Your task to perform on an android device: open app "DuckDuckGo Privacy Browser" (install if not already installed) Image 0: 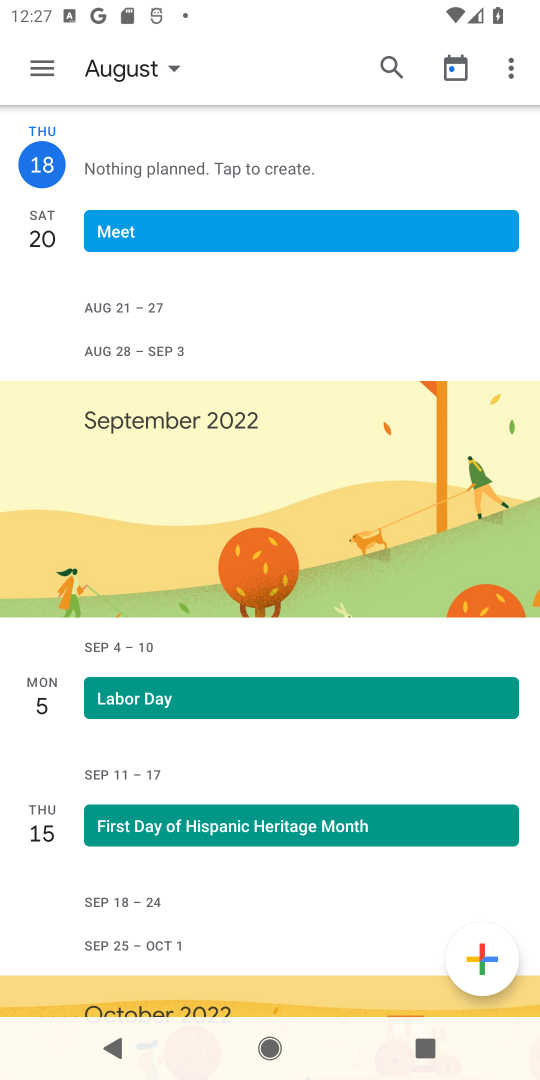
Step 0: press home button
Your task to perform on an android device: open app "DuckDuckGo Privacy Browser" (install if not already installed) Image 1: 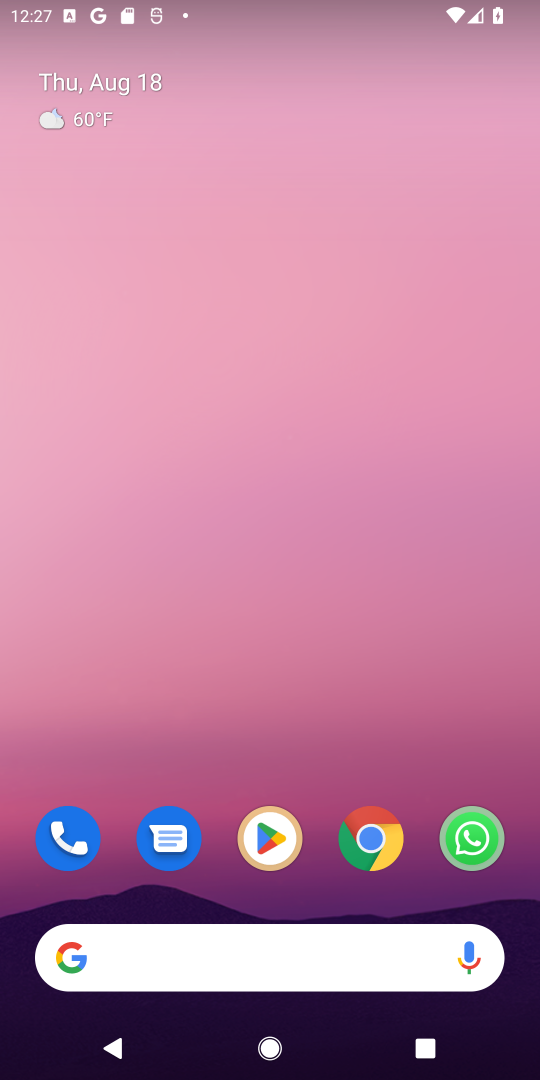
Step 1: click (278, 816)
Your task to perform on an android device: open app "DuckDuckGo Privacy Browser" (install if not already installed) Image 2: 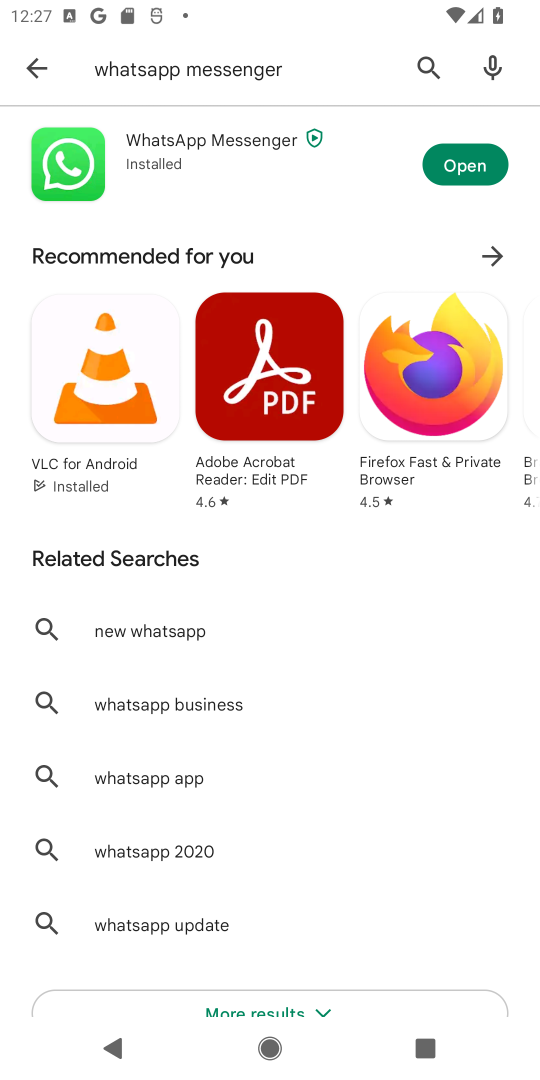
Step 2: click (422, 72)
Your task to perform on an android device: open app "DuckDuckGo Privacy Browser" (install if not already installed) Image 3: 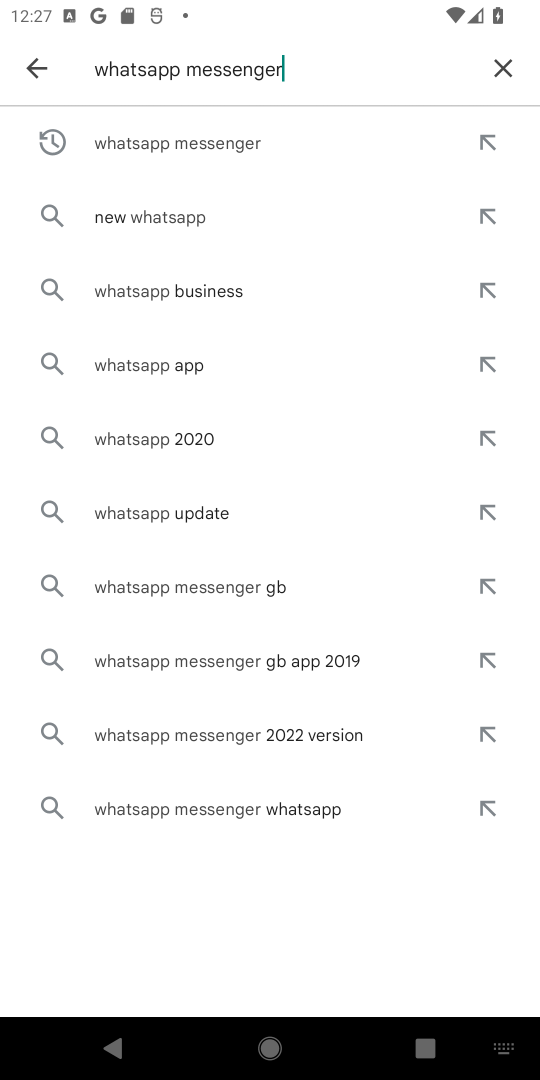
Step 3: click (496, 64)
Your task to perform on an android device: open app "DuckDuckGo Privacy Browser" (install if not already installed) Image 4: 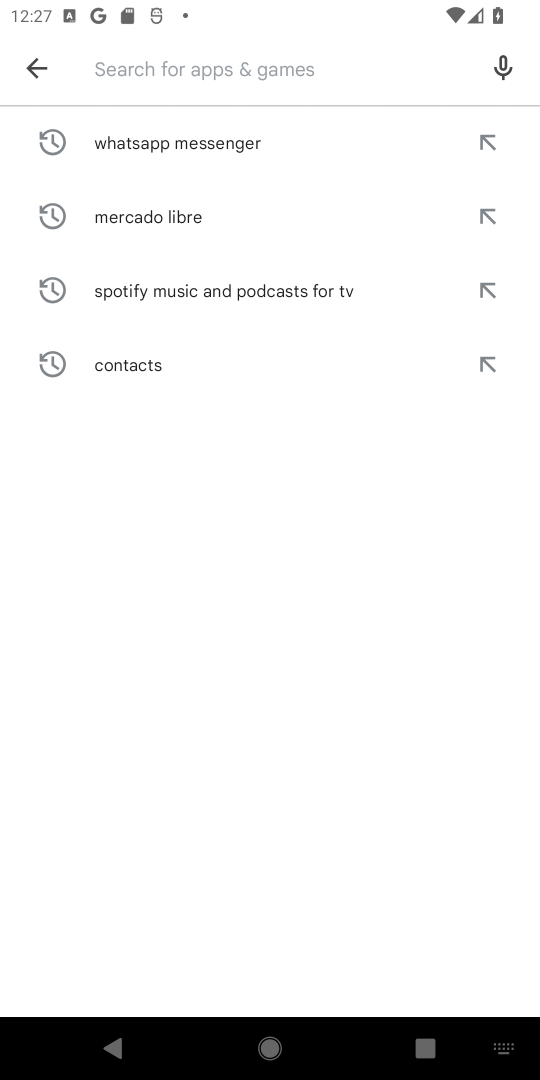
Step 4: type "DuckDuckGo Privacy Browser"
Your task to perform on an android device: open app "DuckDuckGo Privacy Browser" (install if not already installed) Image 5: 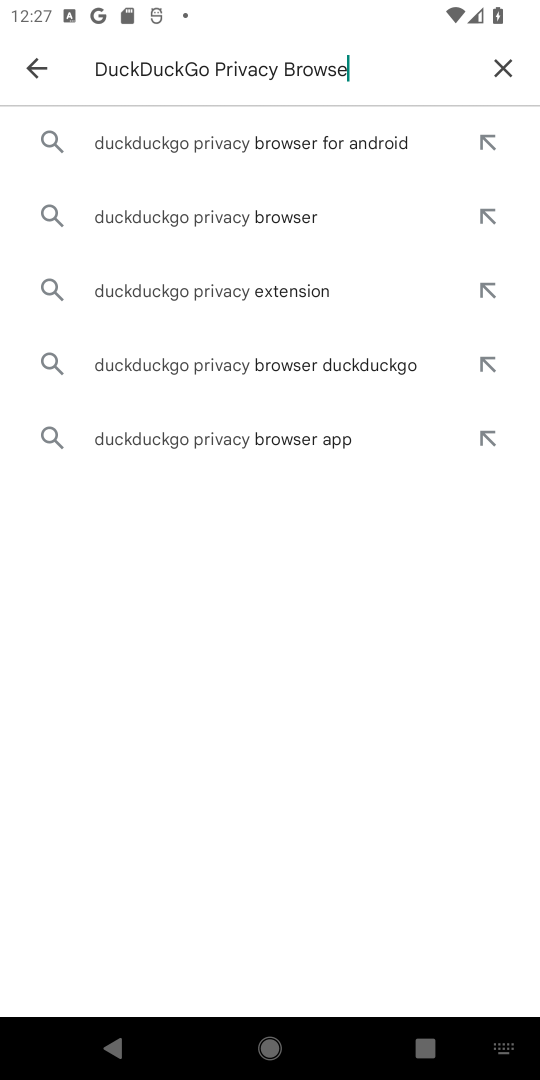
Step 5: type ""
Your task to perform on an android device: open app "DuckDuckGo Privacy Browser" (install if not already installed) Image 6: 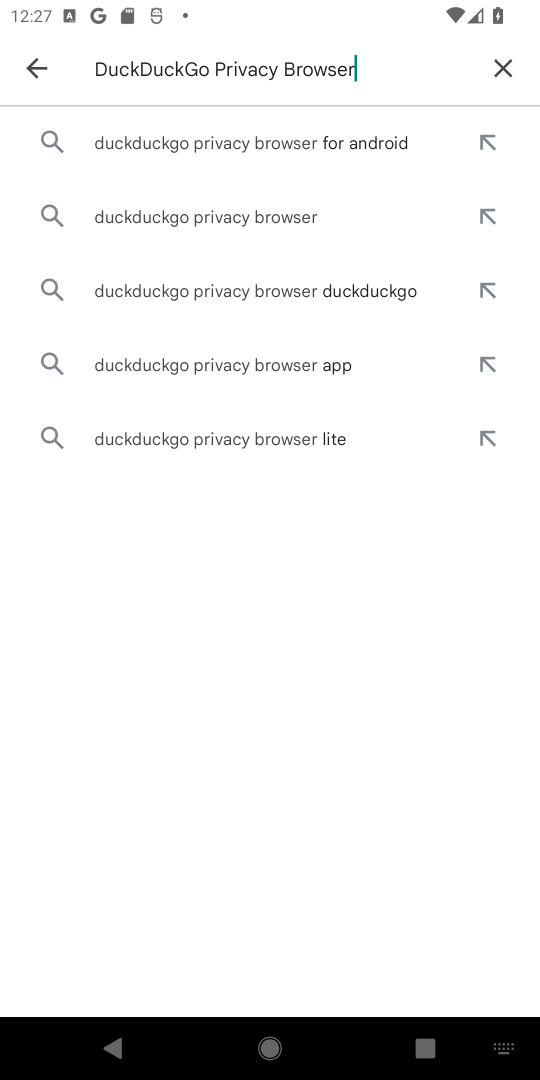
Step 6: click (172, 152)
Your task to perform on an android device: open app "DuckDuckGo Privacy Browser" (install if not already installed) Image 7: 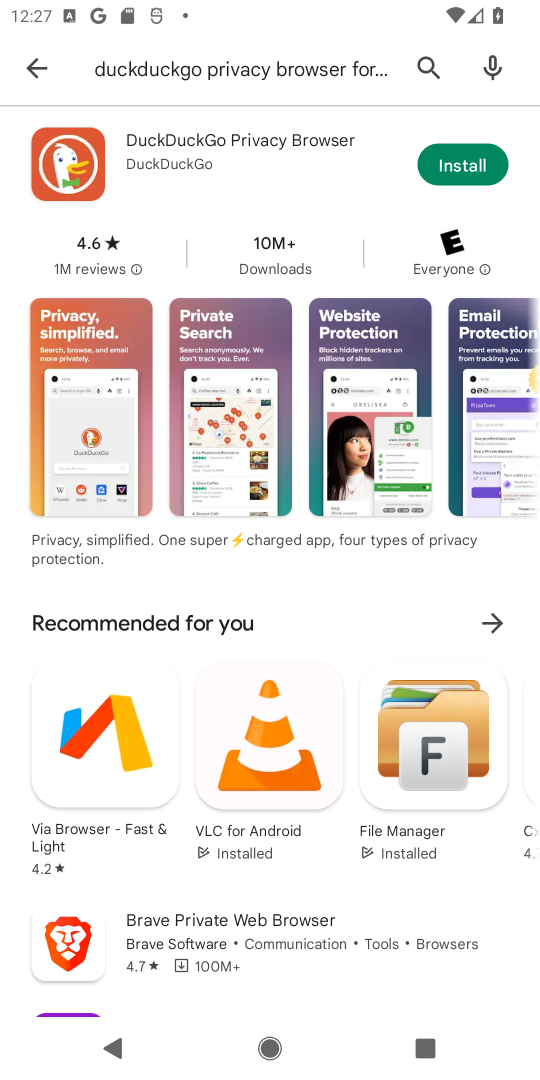
Step 7: click (496, 163)
Your task to perform on an android device: open app "DuckDuckGo Privacy Browser" (install if not already installed) Image 8: 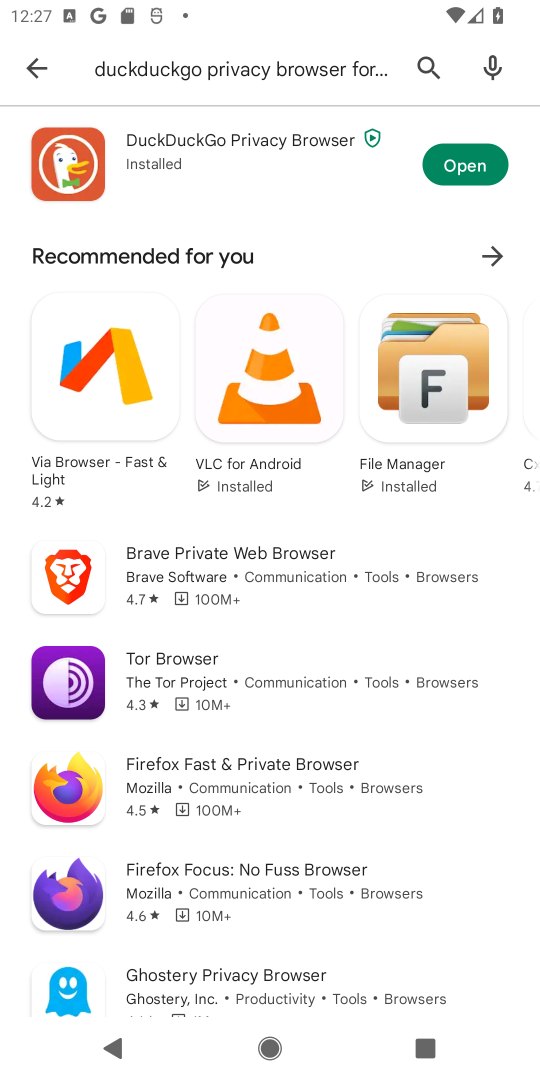
Step 8: click (452, 162)
Your task to perform on an android device: open app "DuckDuckGo Privacy Browser" (install if not already installed) Image 9: 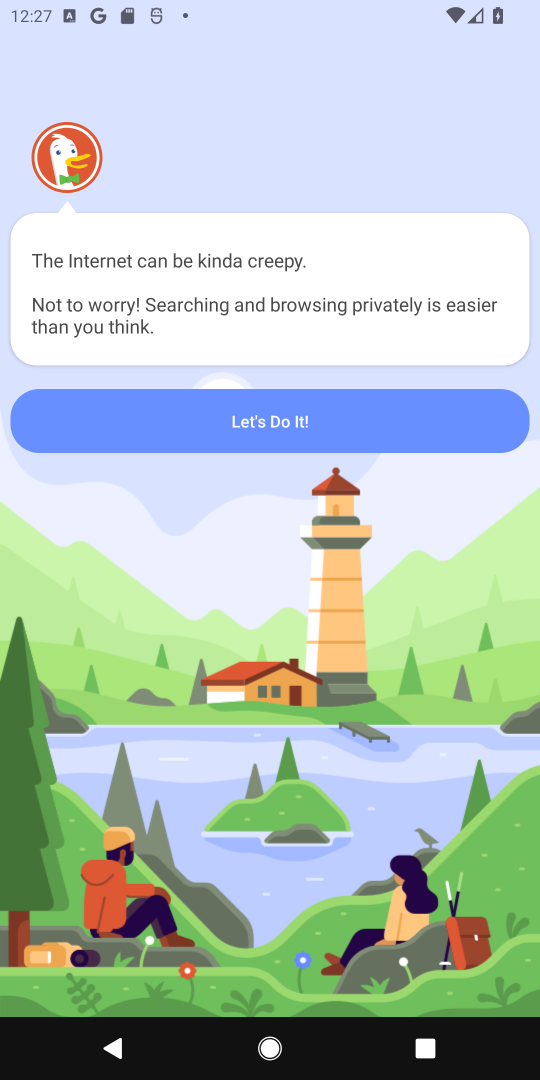
Step 9: task complete